Your task to perform on an android device: Go to internet settings Image 0: 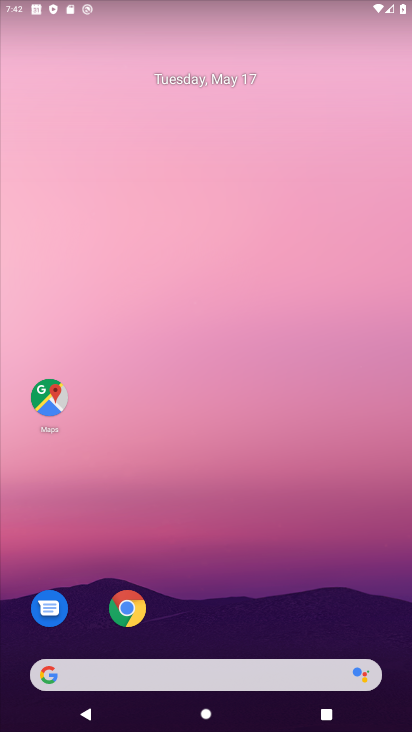
Step 0: drag from (221, 618) to (332, 16)
Your task to perform on an android device: Go to internet settings Image 1: 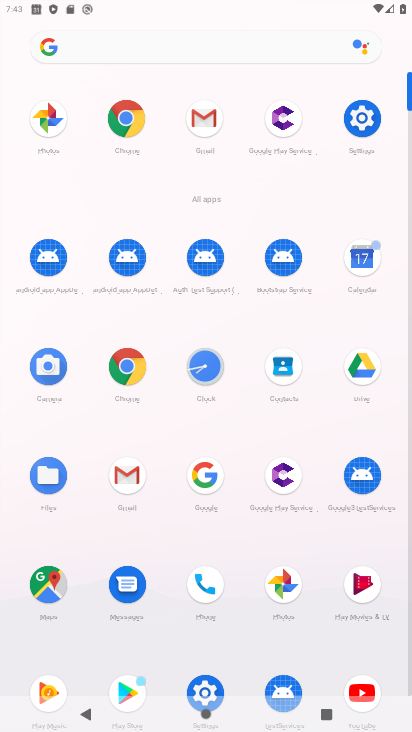
Step 1: click (360, 151)
Your task to perform on an android device: Go to internet settings Image 2: 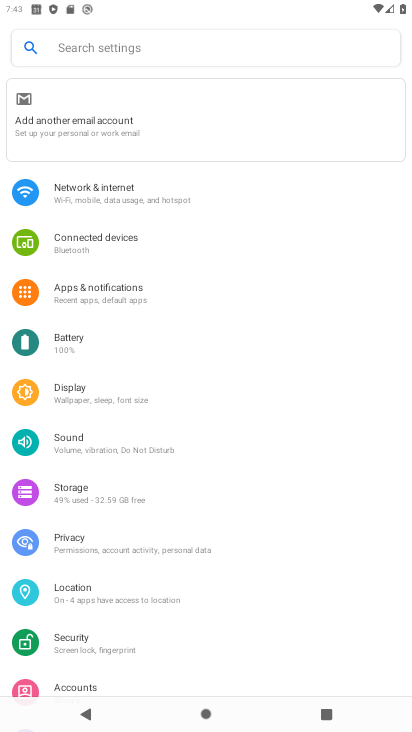
Step 2: click (153, 195)
Your task to perform on an android device: Go to internet settings Image 3: 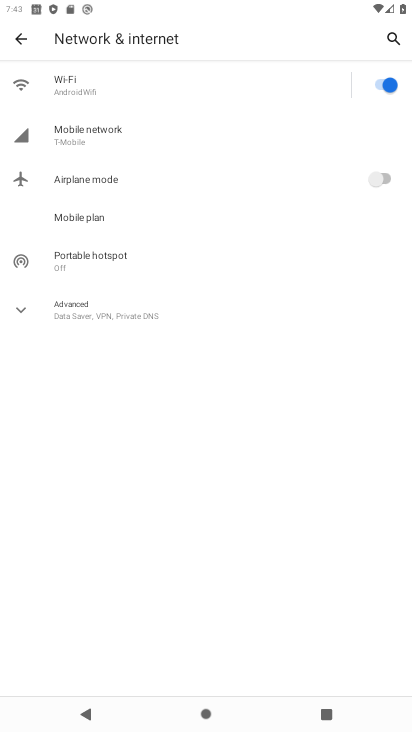
Step 3: task complete